Your task to perform on an android device: Search for Mexican restaurants on Maps Image 0: 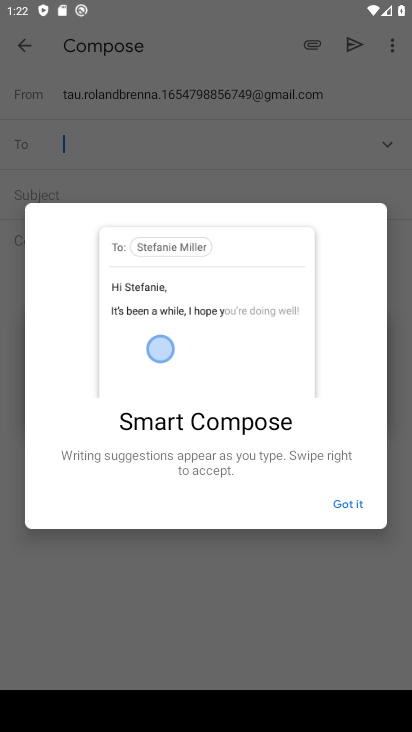
Step 0: click (358, 502)
Your task to perform on an android device: Search for Mexican restaurants on Maps Image 1: 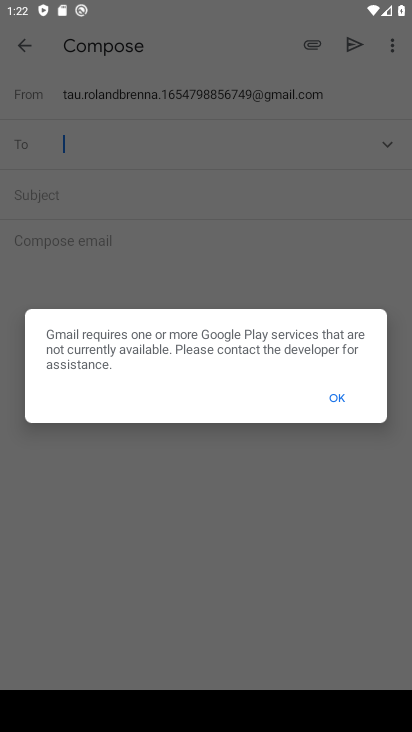
Step 1: press home button
Your task to perform on an android device: Search for Mexican restaurants on Maps Image 2: 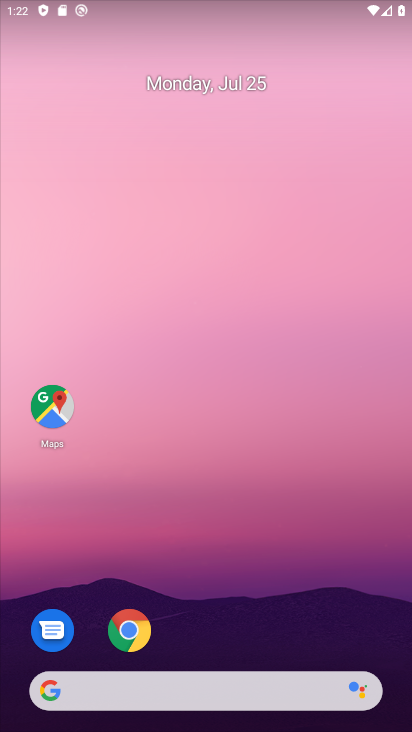
Step 2: click (60, 407)
Your task to perform on an android device: Search for Mexican restaurants on Maps Image 3: 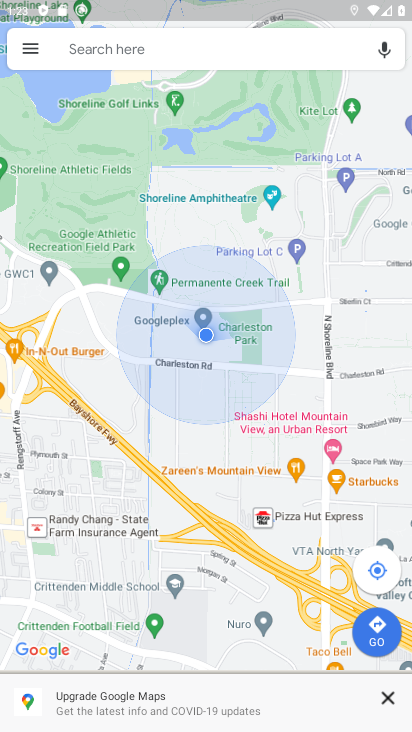
Step 3: click (95, 42)
Your task to perform on an android device: Search for Mexican restaurants on Maps Image 4: 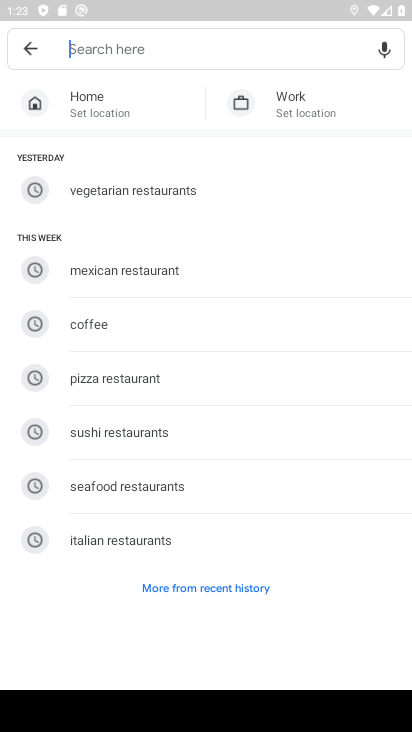
Step 4: click (277, 278)
Your task to perform on an android device: Search for Mexican restaurants on Maps Image 5: 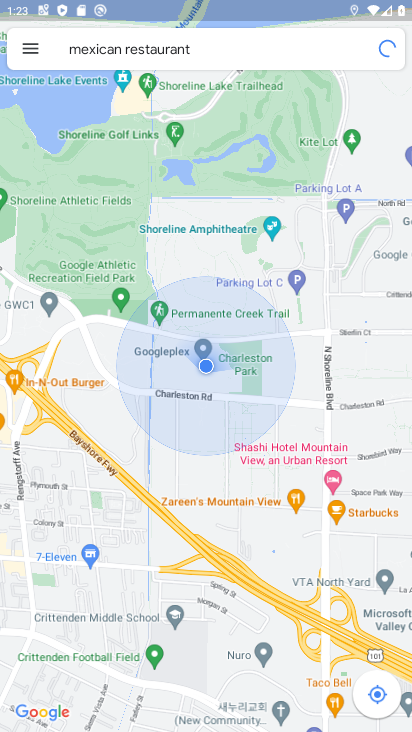
Step 5: task complete